Your task to perform on an android device: Search for sushi restaurants on Maps Image 0: 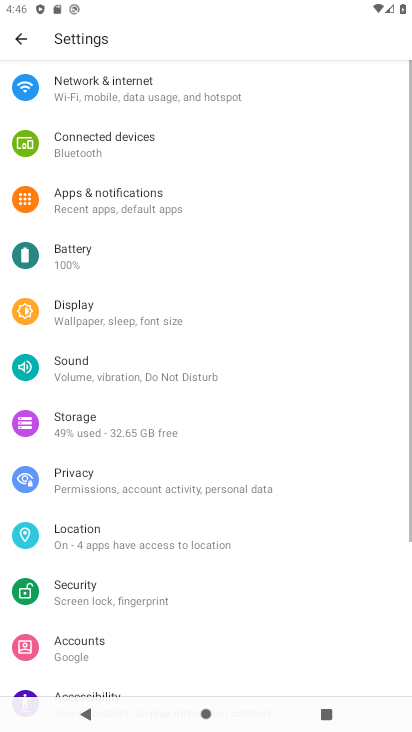
Step 0: press home button
Your task to perform on an android device: Search for sushi restaurants on Maps Image 1: 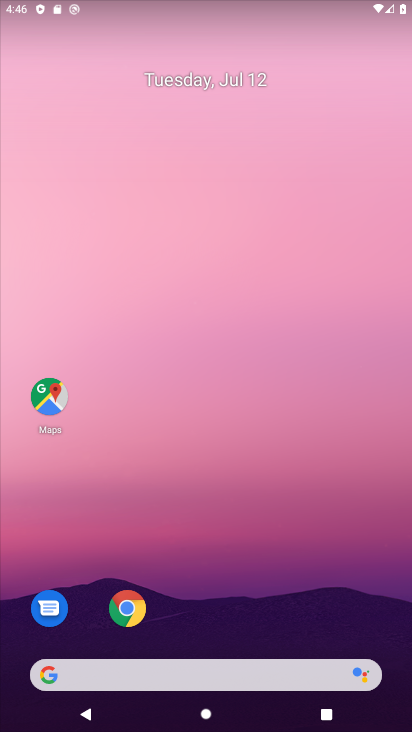
Step 1: click (56, 397)
Your task to perform on an android device: Search for sushi restaurants on Maps Image 2: 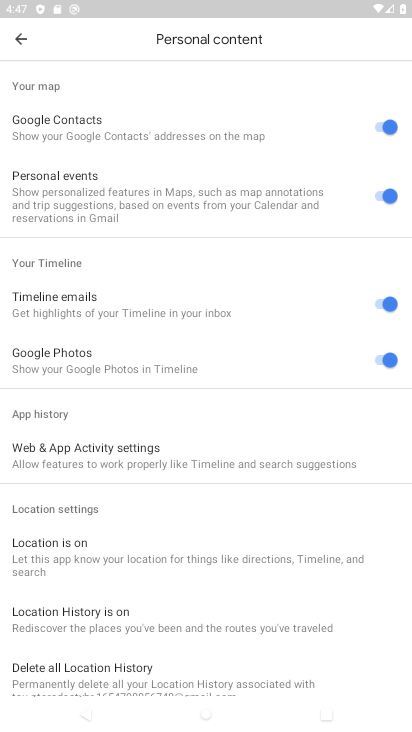
Step 2: click (22, 24)
Your task to perform on an android device: Search for sushi restaurants on Maps Image 3: 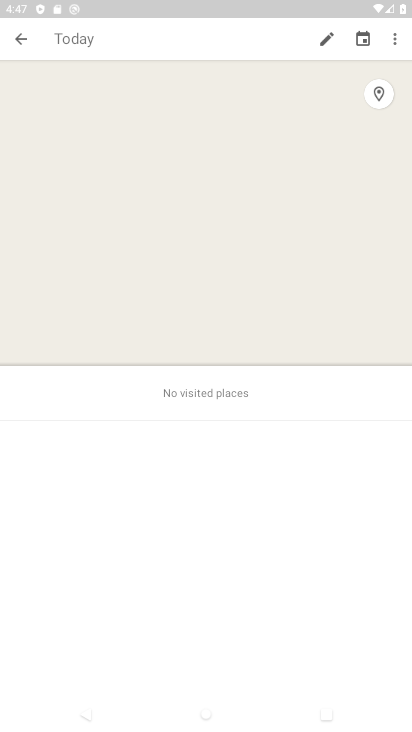
Step 3: click (22, 24)
Your task to perform on an android device: Search for sushi restaurants on Maps Image 4: 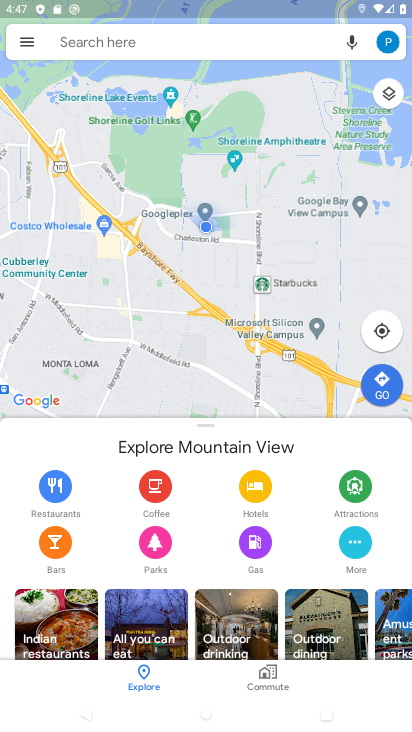
Step 4: click (144, 41)
Your task to perform on an android device: Search for sushi restaurants on Maps Image 5: 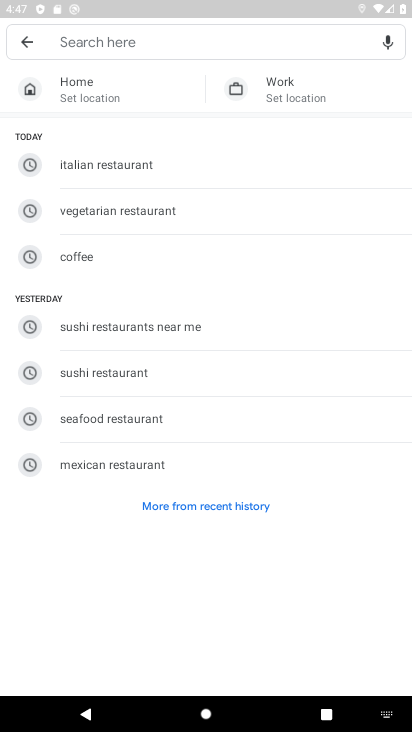
Step 5: type "zushi restaurant"
Your task to perform on an android device: Search for sushi restaurants on Maps Image 6: 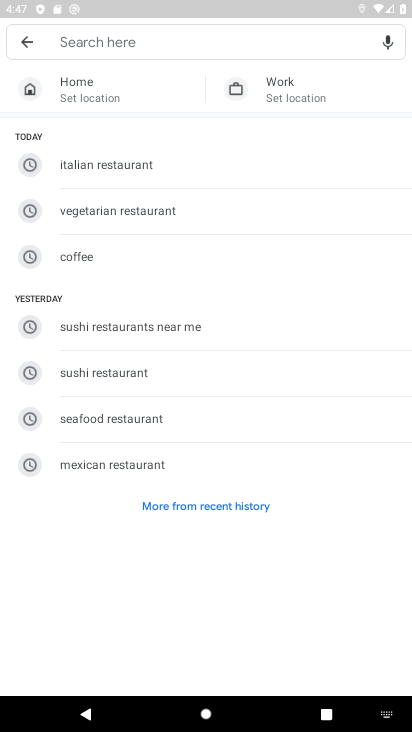
Step 6: click (100, 378)
Your task to perform on an android device: Search for sushi restaurants on Maps Image 7: 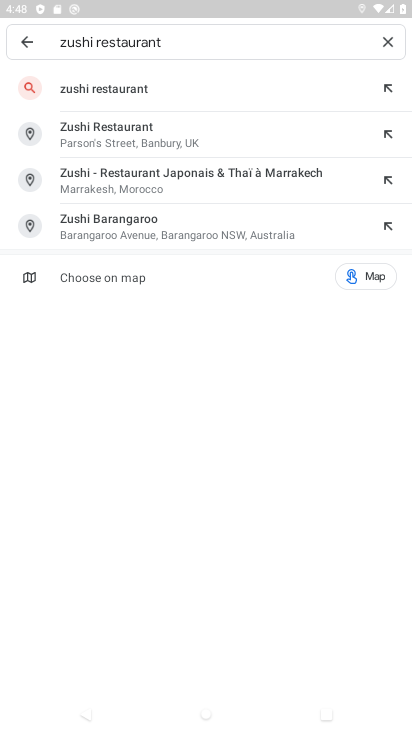
Step 7: click (141, 85)
Your task to perform on an android device: Search for sushi restaurants on Maps Image 8: 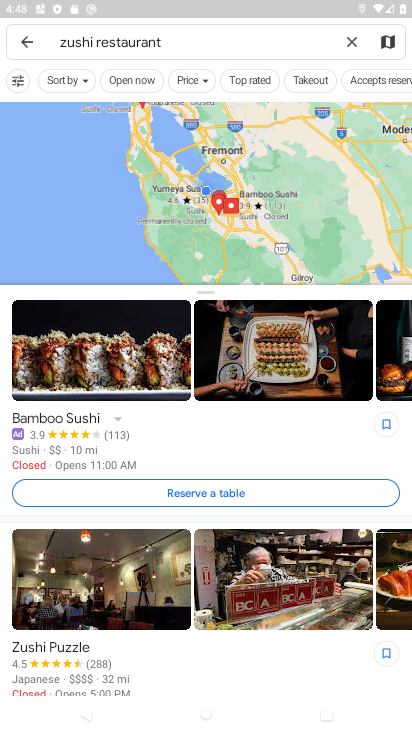
Step 8: task complete